Your task to perform on an android device: See recent photos Image 0: 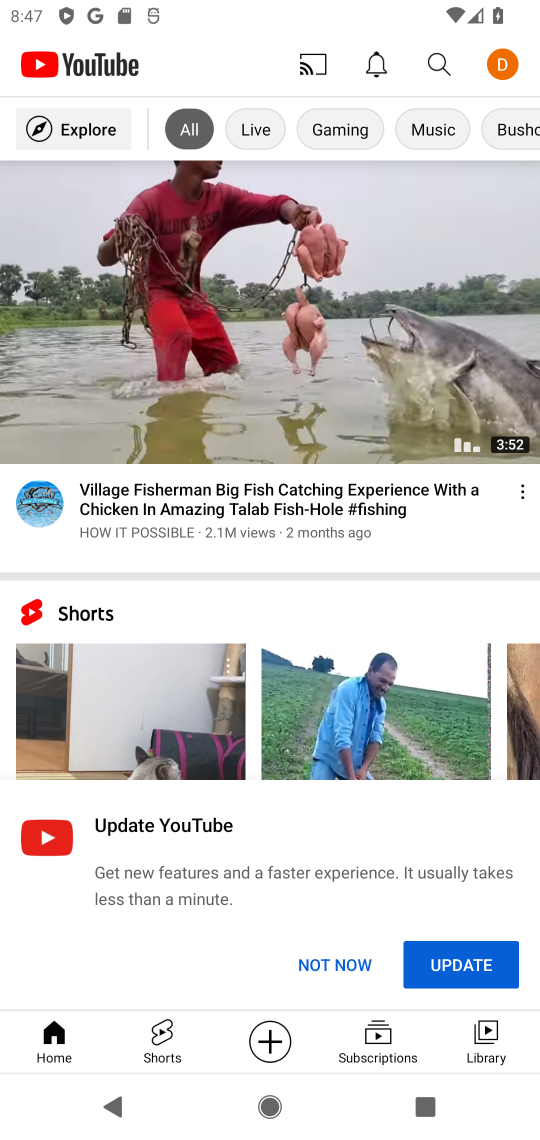
Step 0: press home button
Your task to perform on an android device: See recent photos Image 1: 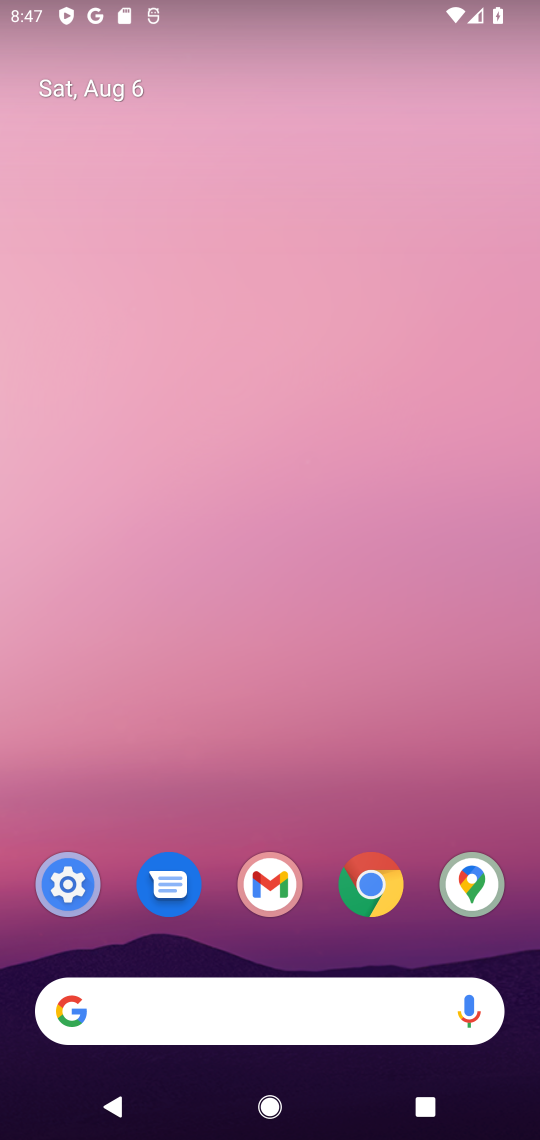
Step 1: drag from (416, 949) to (402, 185)
Your task to perform on an android device: See recent photos Image 2: 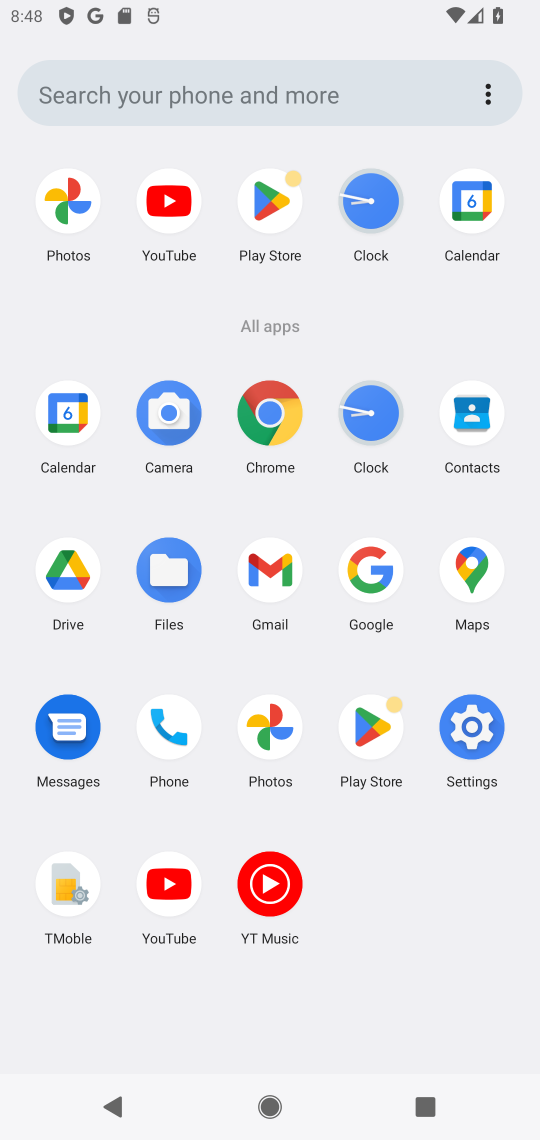
Step 2: click (268, 727)
Your task to perform on an android device: See recent photos Image 3: 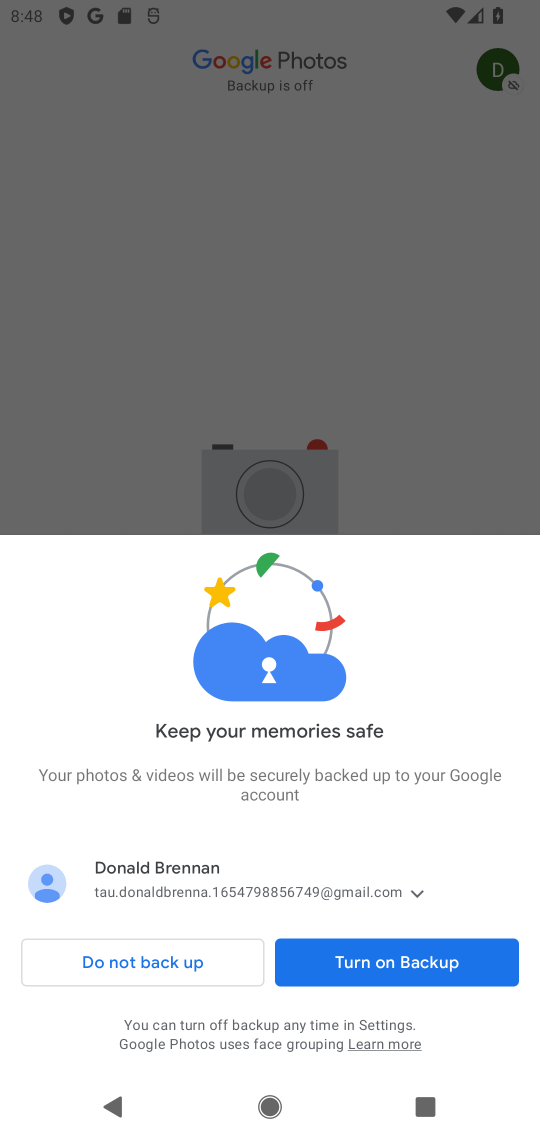
Step 3: click (390, 964)
Your task to perform on an android device: See recent photos Image 4: 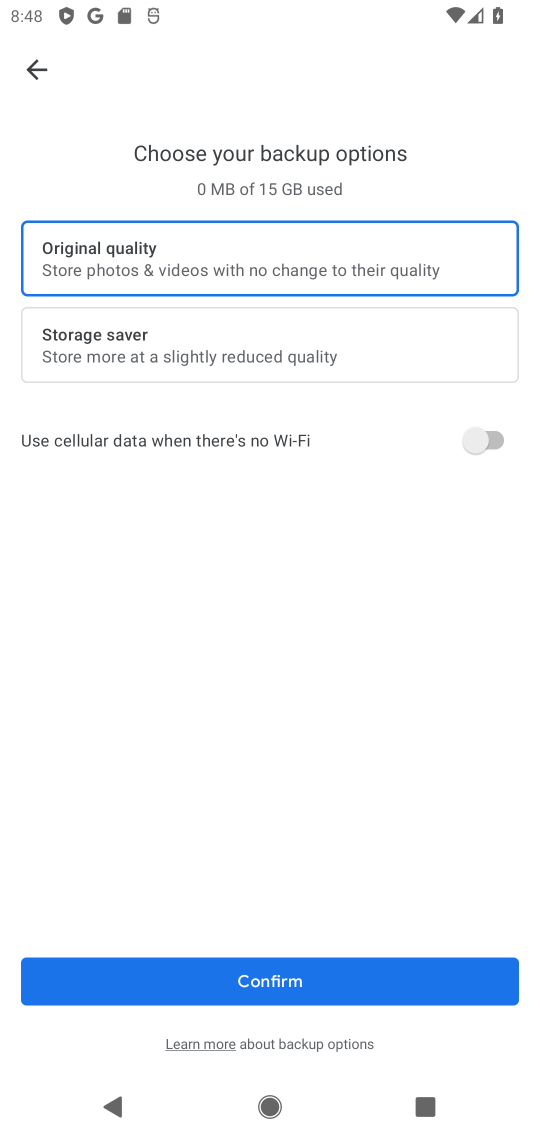
Step 4: click (289, 985)
Your task to perform on an android device: See recent photos Image 5: 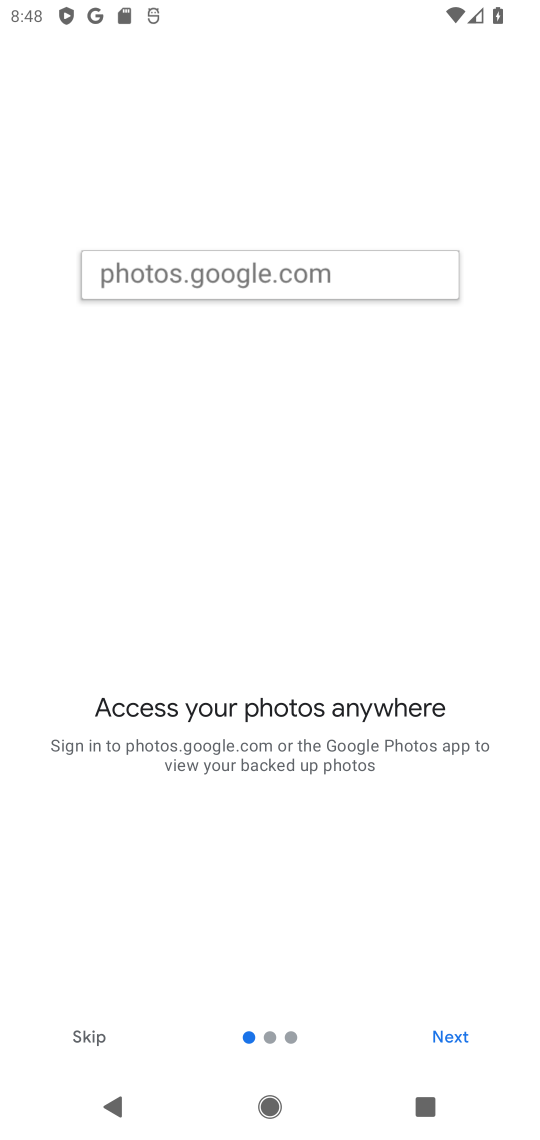
Step 5: click (80, 1031)
Your task to perform on an android device: See recent photos Image 6: 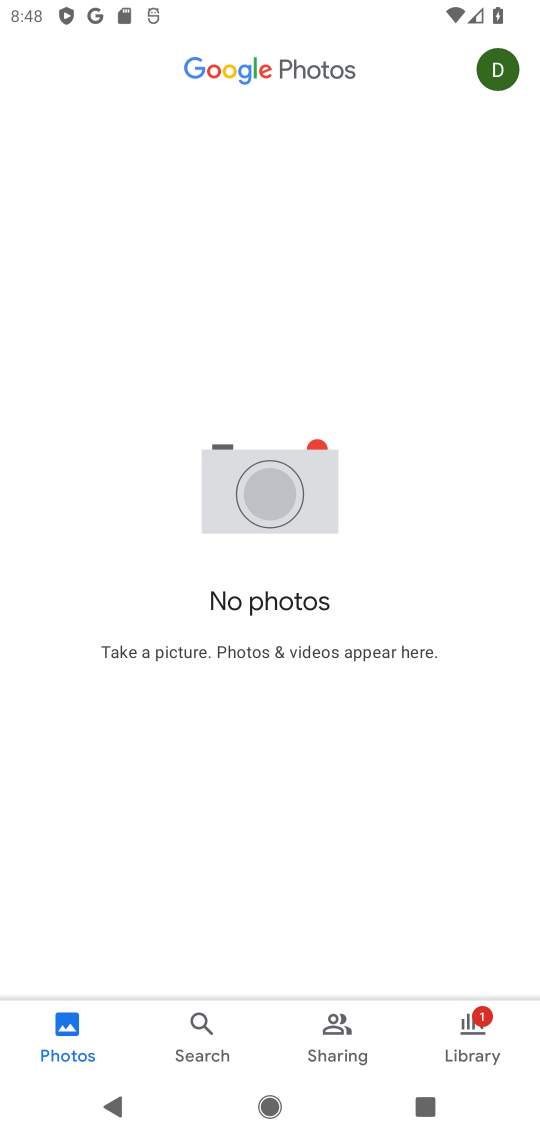
Step 6: task complete